Your task to perform on an android device: turn on translation in the chrome app Image 0: 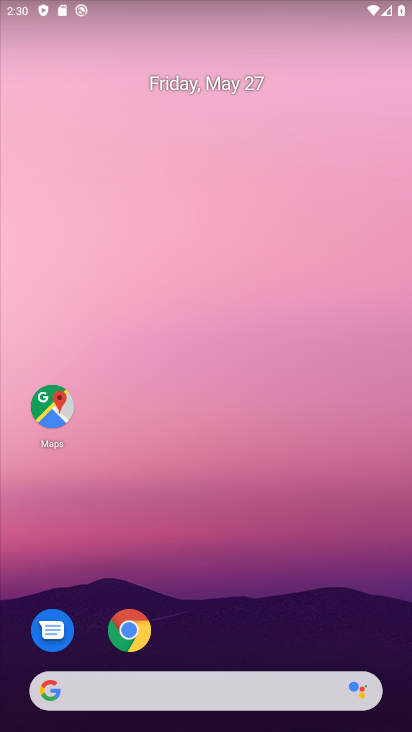
Step 0: click (107, 645)
Your task to perform on an android device: turn on translation in the chrome app Image 1: 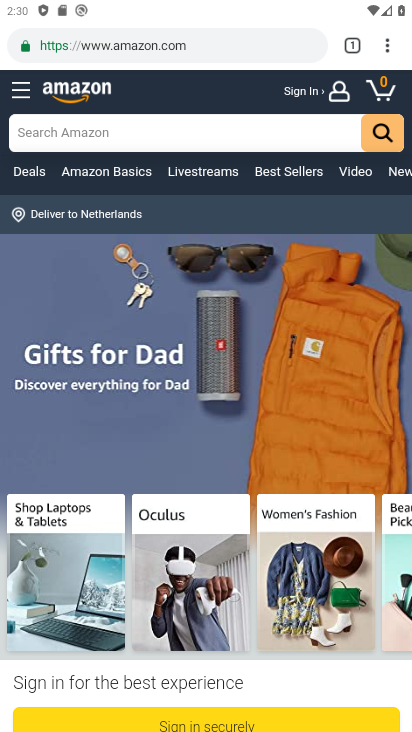
Step 1: click (384, 49)
Your task to perform on an android device: turn on translation in the chrome app Image 2: 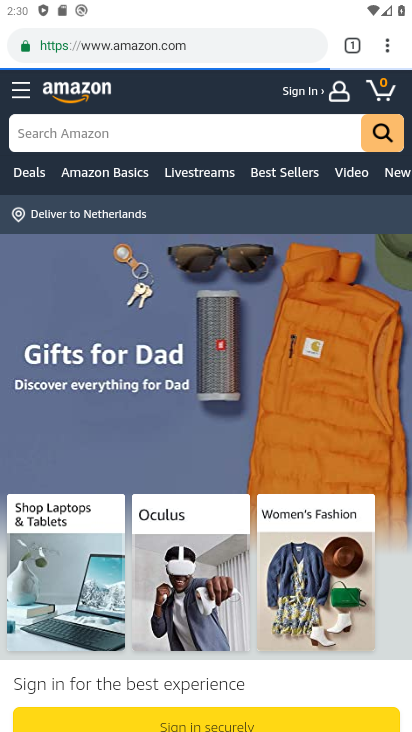
Step 2: drag from (385, 50) to (214, 548)
Your task to perform on an android device: turn on translation in the chrome app Image 3: 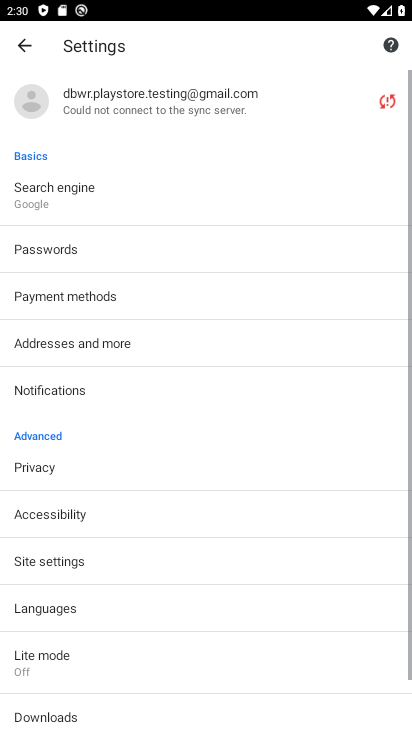
Step 3: drag from (214, 545) to (195, 145)
Your task to perform on an android device: turn on translation in the chrome app Image 4: 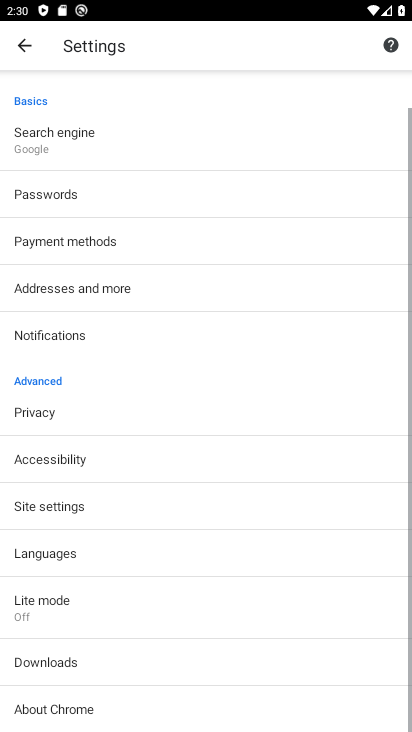
Step 4: click (39, 561)
Your task to perform on an android device: turn on translation in the chrome app Image 5: 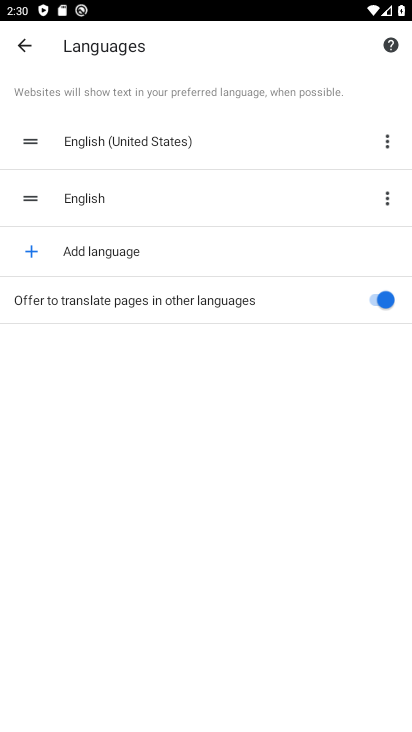
Step 5: task complete